Your task to perform on an android device: Open Android settings Image 0: 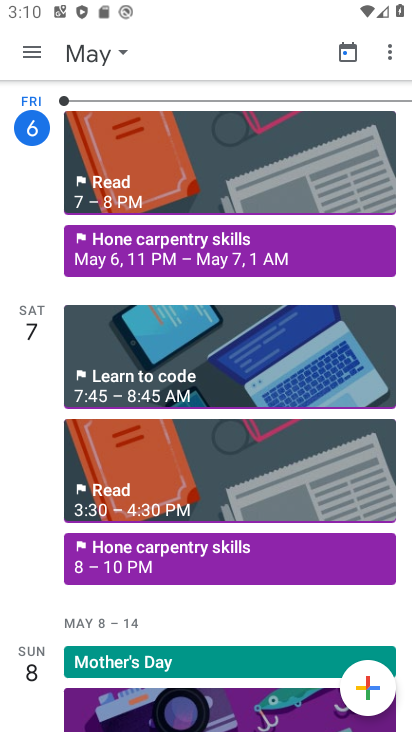
Step 0: press home button
Your task to perform on an android device: Open Android settings Image 1: 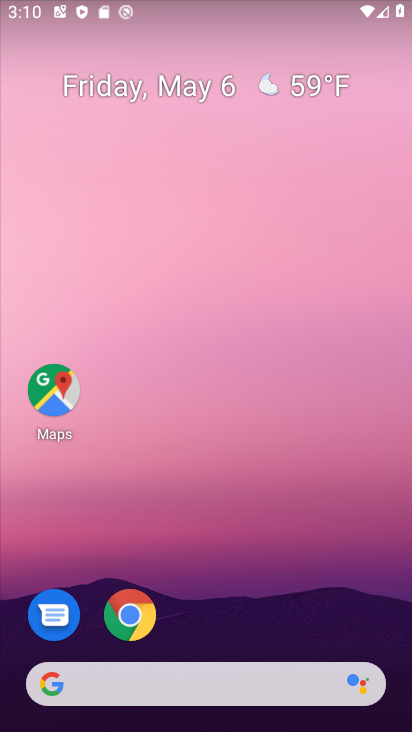
Step 1: drag from (228, 630) to (248, 205)
Your task to perform on an android device: Open Android settings Image 2: 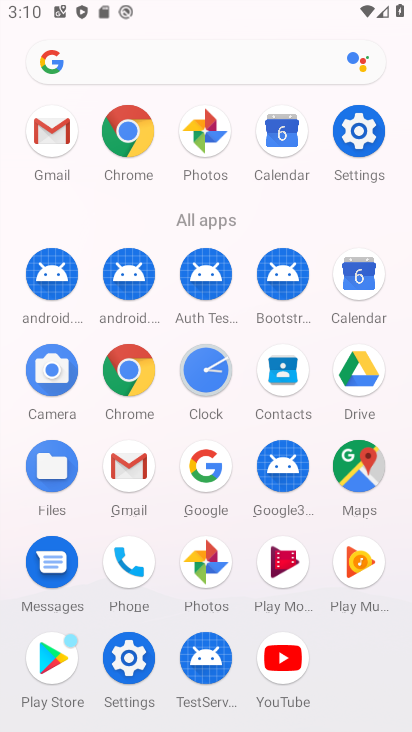
Step 2: click (360, 125)
Your task to perform on an android device: Open Android settings Image 3: 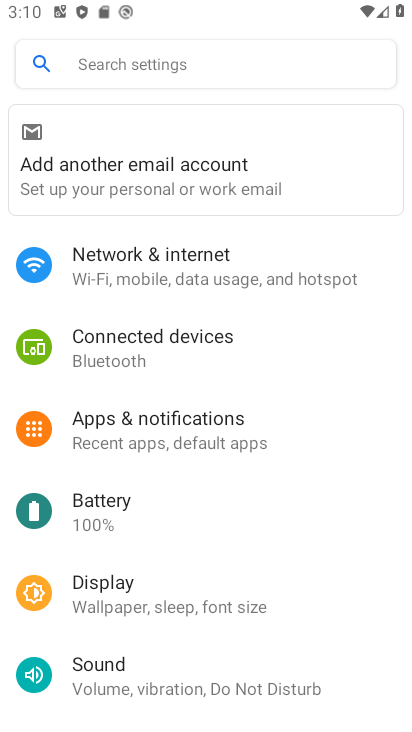
Step 3: drag from (202, 701) to (387, 219)
Your task to perform on an android device: Open Android settings Image 4: 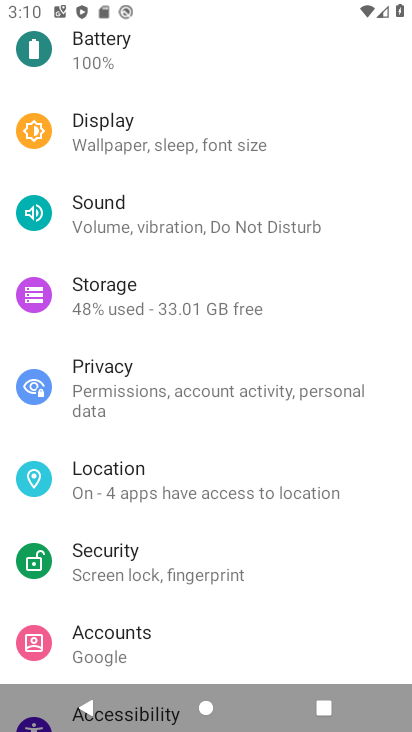
Step 4: drag from (163, 648) to (252, 195)
Your task to perform on an android device: Open Android settings Image 5: 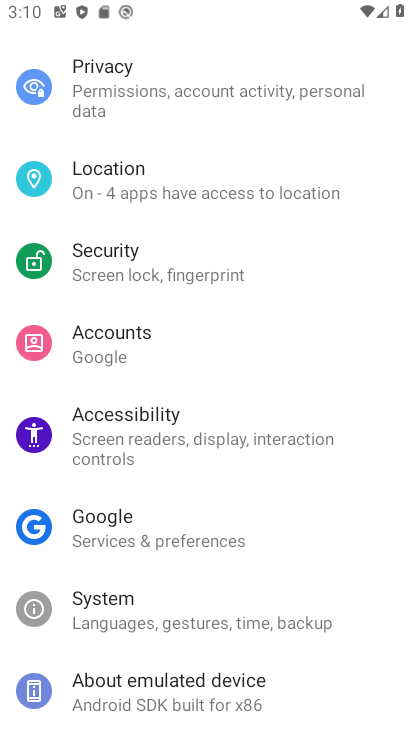
Step 5: click (177, 698)
Your task to perform on an android device: Open Android settings Image 6: 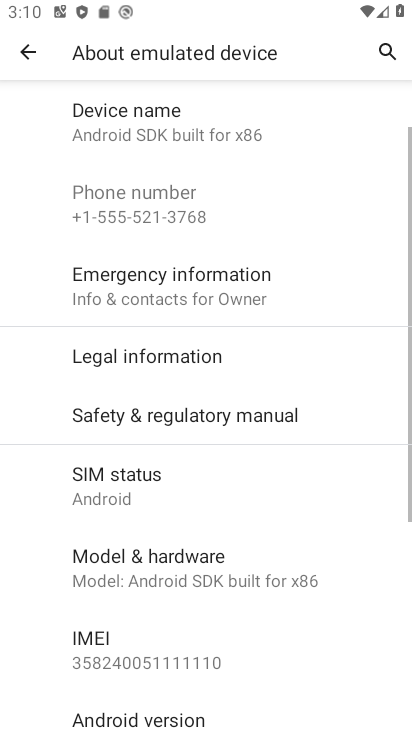
Step 6: task complete